Your task to perform on an android device: Is it going to rain today? Image 0: 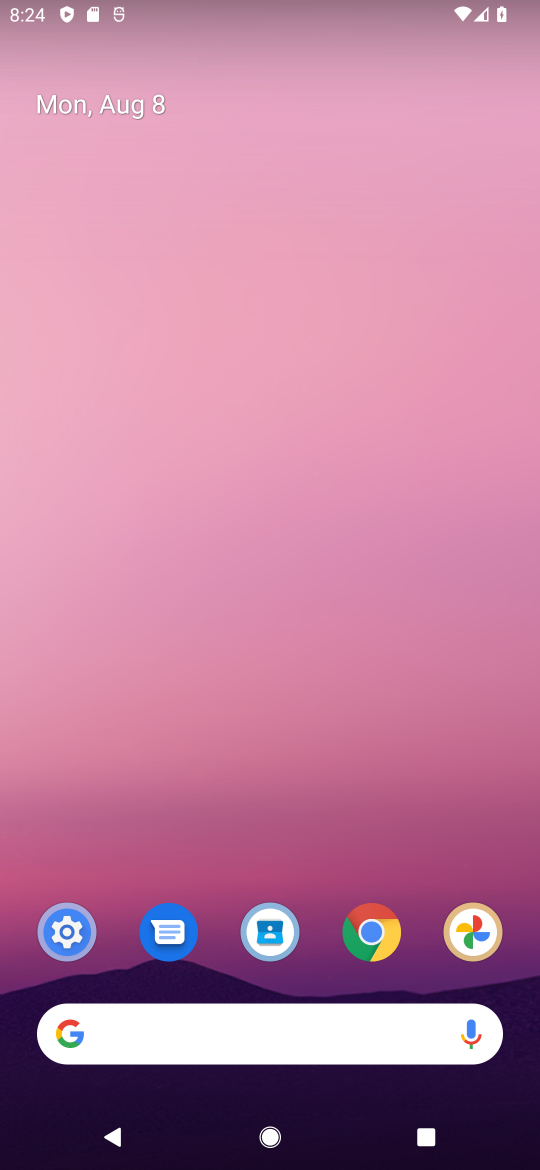
Step 0: click (191, 1050)
Your task to perform on an android device: Is it going to rain today? Image 1: 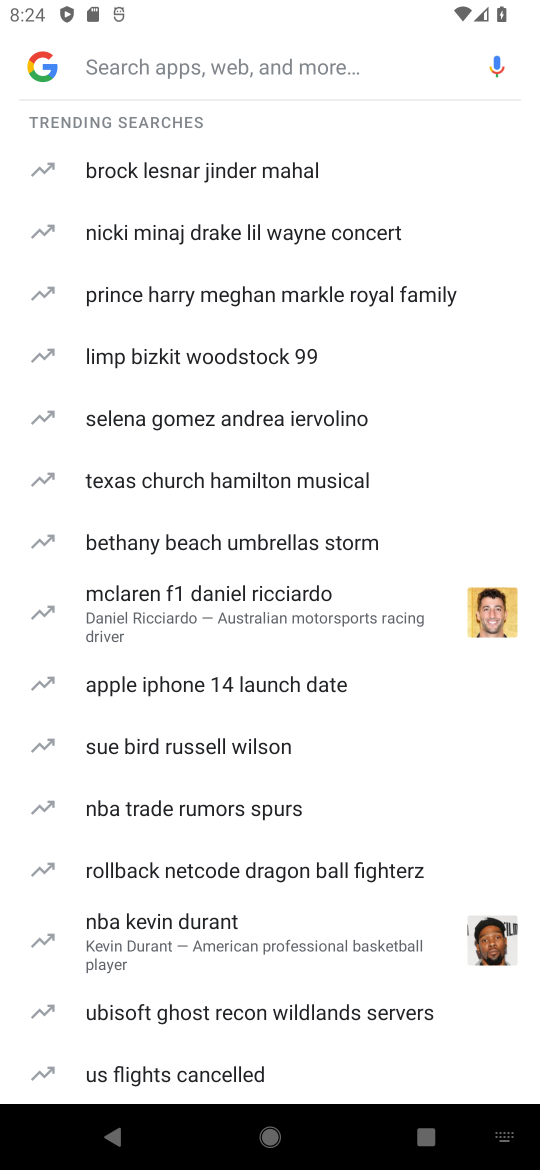
Step 1: click (171, 67)
Your task to perform on an android device: Is it going to rain today? Image 2: 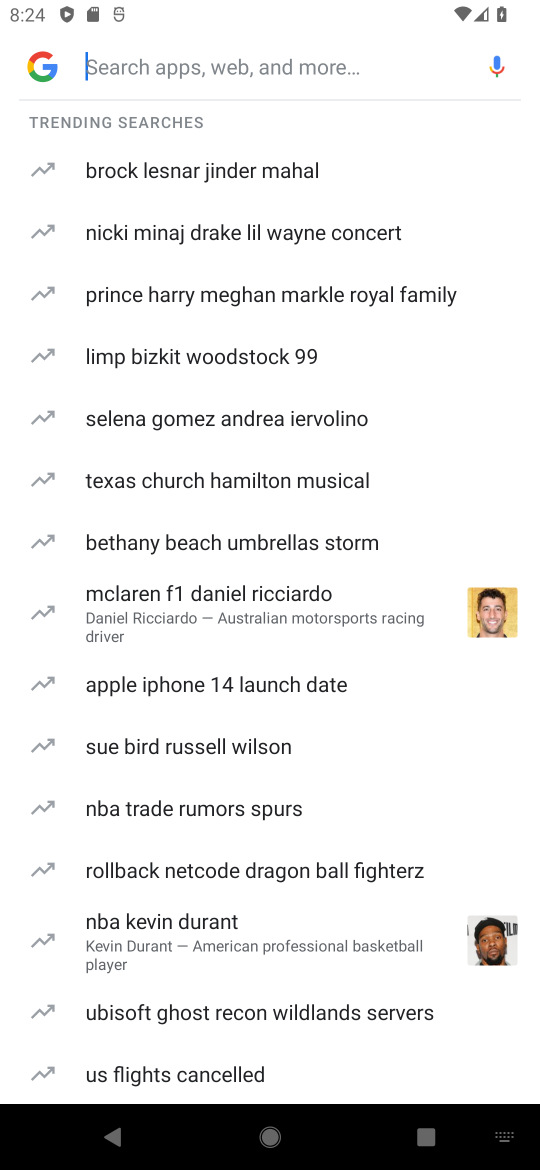
Step 2: type "weather"
Your task to perform on an android device: Is it going to rain today? Image 3: 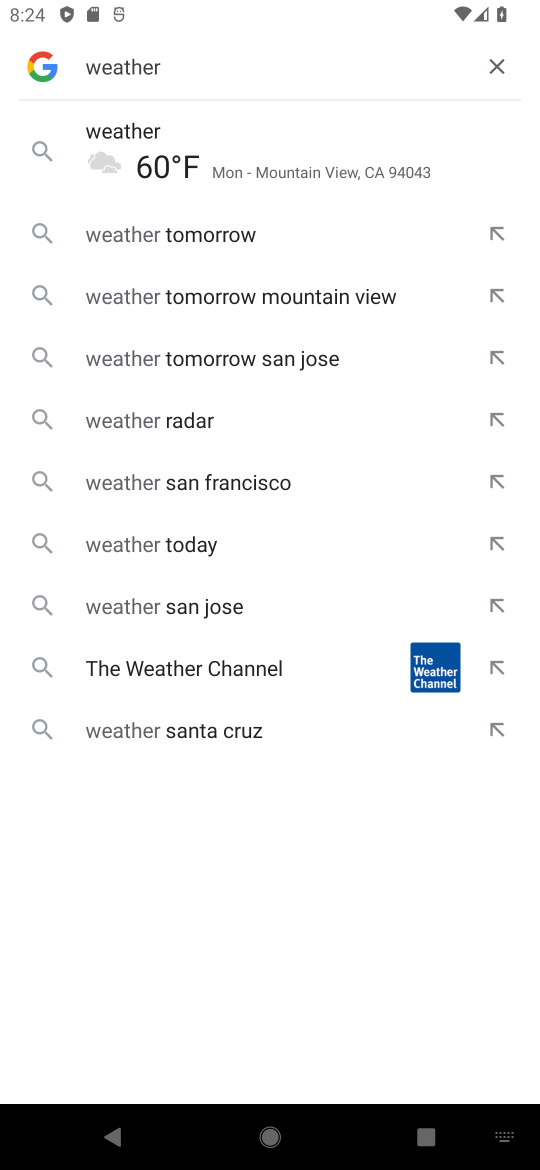
Step 3: click (214, 153)
Your task to perform on an android device: Is it going to rain today? Image 4: 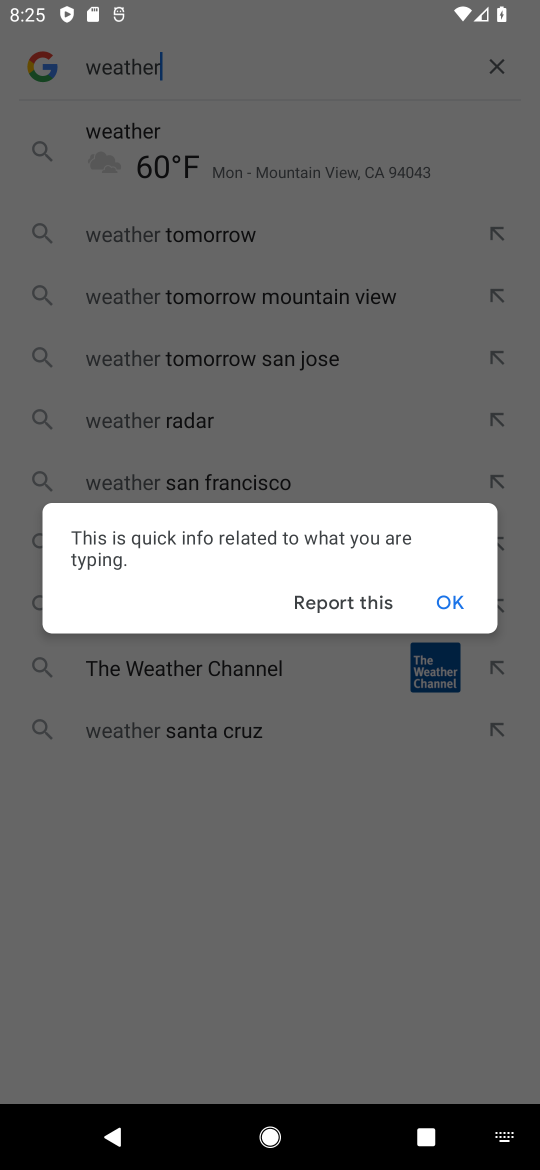
Step 4: click (443, 595)
Your task to perform on an android device: Is it going to rain today? Image 5: 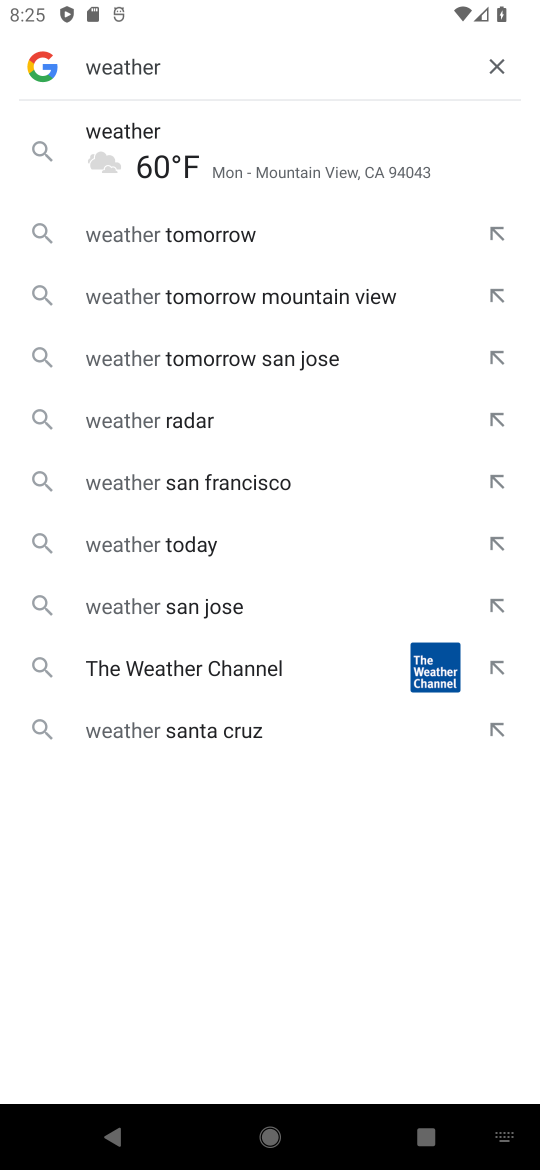
Step 5: click (226, 159)
Your task to perform on an android device: Is it going to rain today? Image 6: 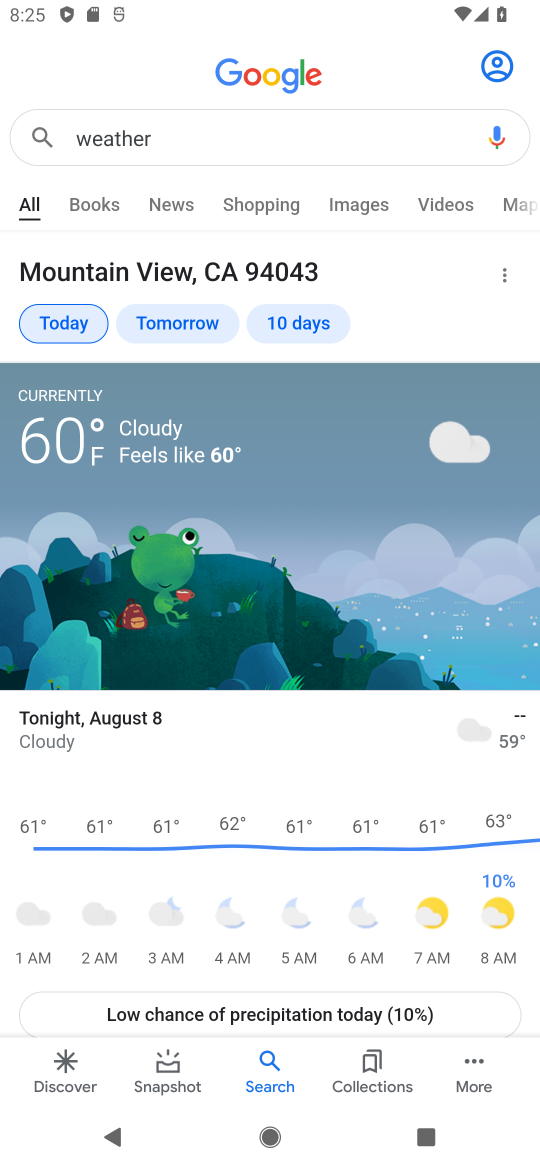
Step 6: click (57, 317)
Your task to perform on an android device: Is it going to rain today? Image 7: 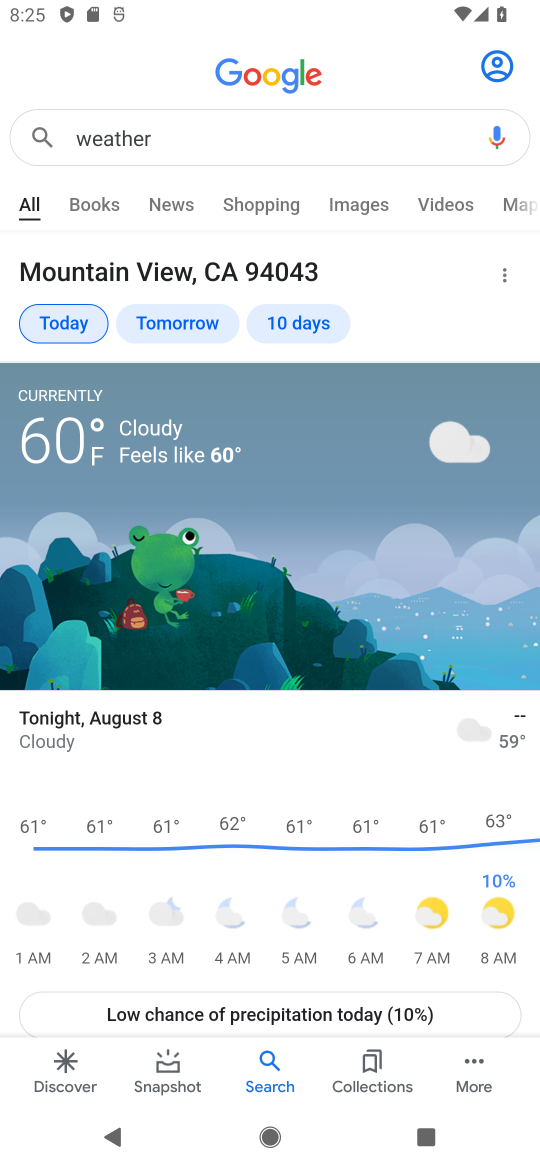
Step 7: task complete